Your task to perform on an android device: Go to Android settings Image 0: 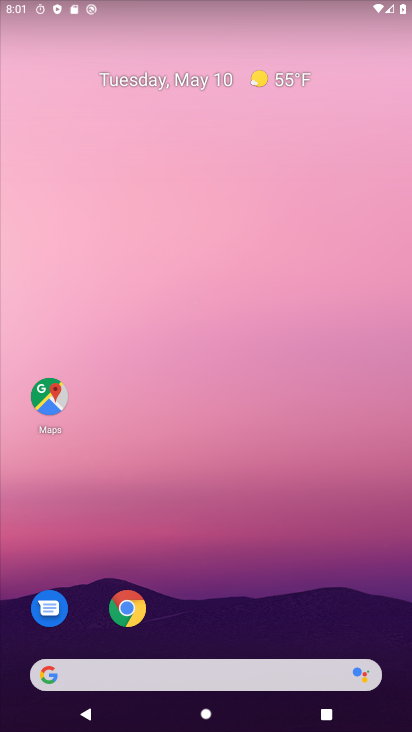
Step 0: drag from (264, 587) to (268, 105)
Your task to perform on an android device: Go to Android settings Image 1: 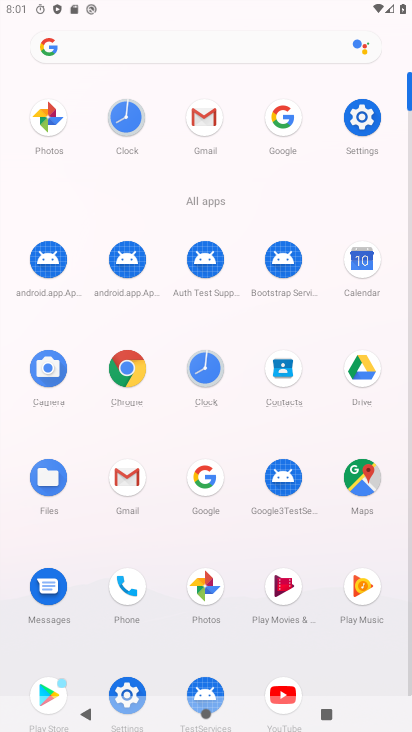
Step 1: click (361, 114)
Your task to perform on an android device: Go to Android settings Image 2: 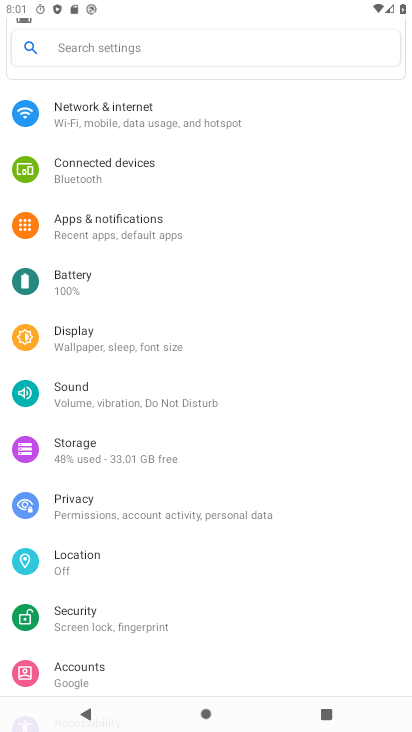
Step 2: task complete